Your task to perform on an android device: Open Google Image 0: 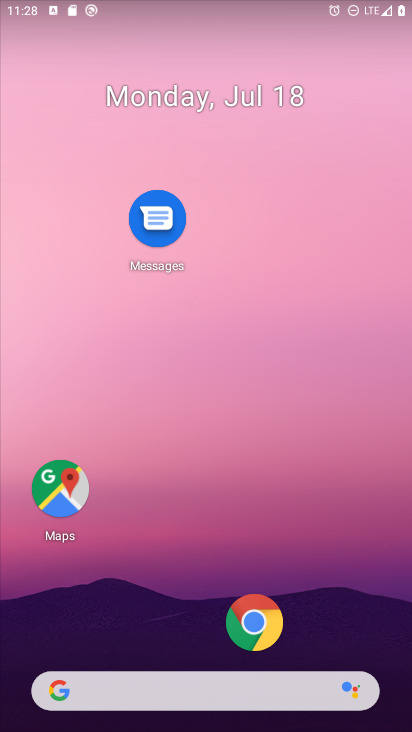
Step 0: drag from (252, 647) to (320, 142)
Your task to perform on an android device: Open Google Image 1: 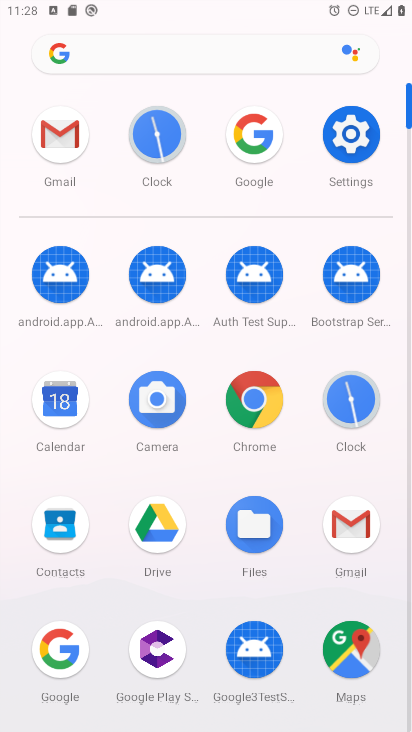
Step 1: drag from (255, 574) to (255, 361)
Your task to perform on an android device: Open Google Image 2: 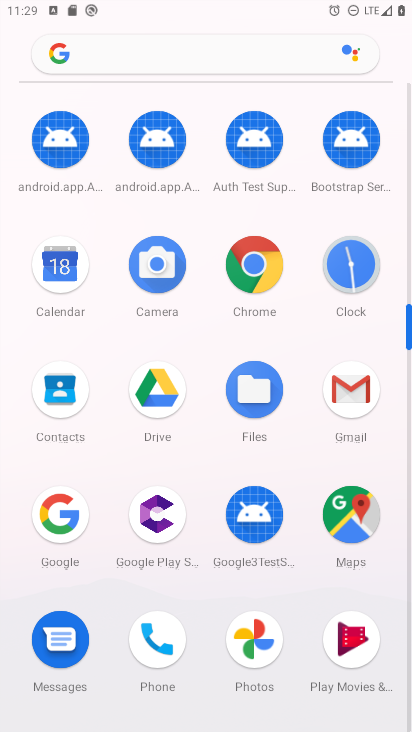
Step 2: click (55, 536)
Your task to perform on an android device: Open Google Image 3: 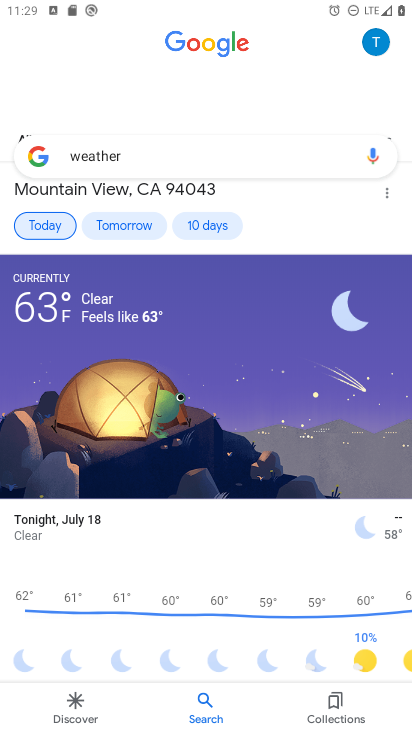
Step 3: task complete